Your task to perform on an android device: Go to privacy settings Image 0: 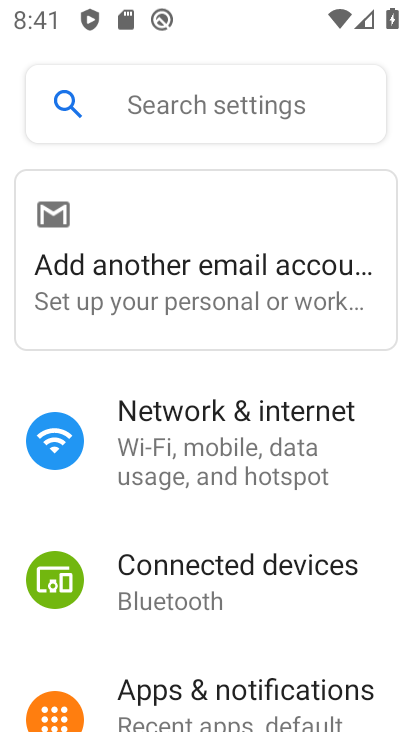
Step 0: drag from (212, 616) to (153, 121)
Your task to perform on an android device: Go to privacy settings Image 1: 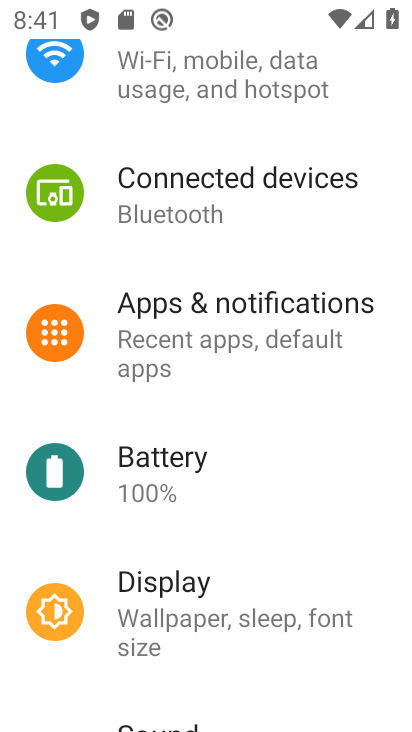
Step 1: drag from (185, 601) to (158, 306)
Your task to perform on an android device: Go to privacy settings Image 2: 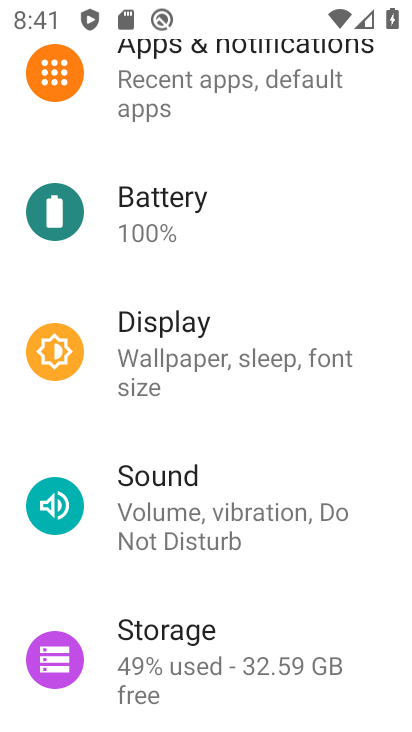
Step 2: drag from (260, 413) to (269, 113)
Your task to perform on an android device: Go to privacy settings Image 3: 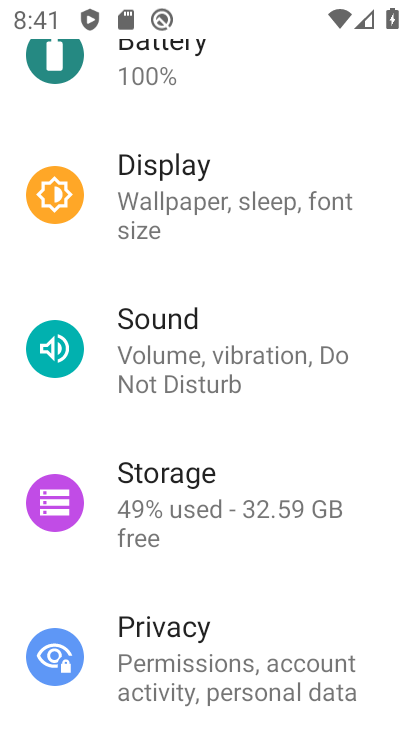
Step 3: click (168, 632)
Your task to perform on an android device: Go to privacy settings Image 4: 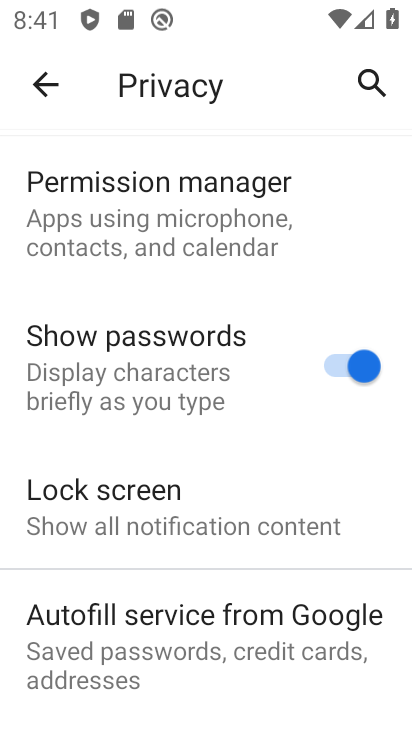
Step 4: task complete